Your task to perform on an android device: What's the weather going to be this weekend? Image 0: 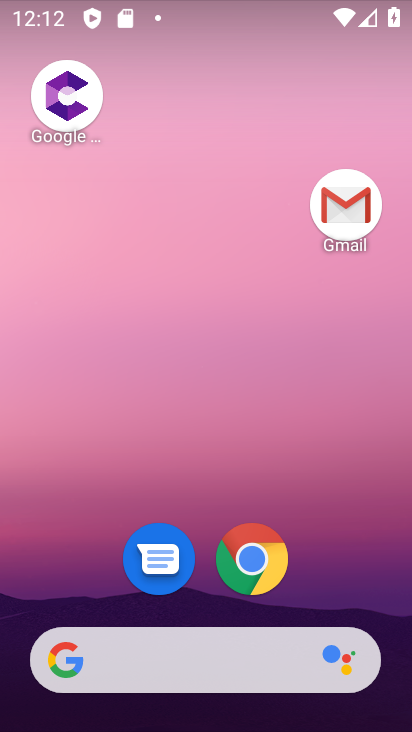
Step 0: click (228, 658)
Your task to perform on an android device: What's the weather going to be this weekend? Image 1: 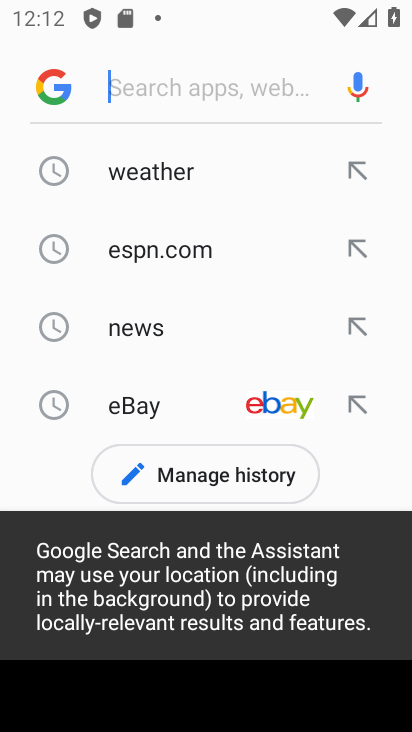
Step 1: click (172, 179)
Your task to perform on an android device: What's the weather going to be this weekend? Image 2: 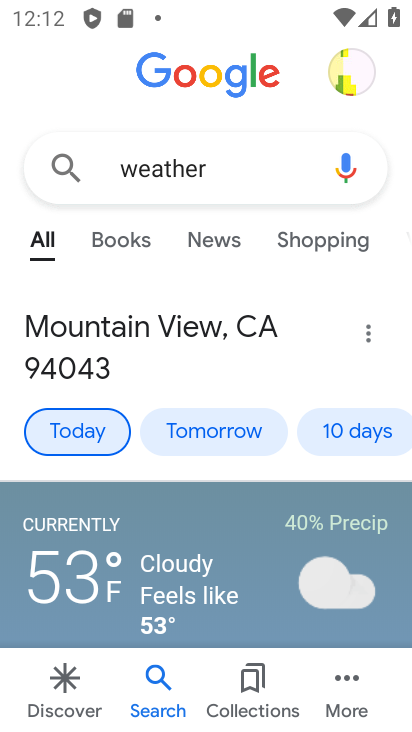
Step 2: click (351, 426)
Your task to perform on an android device: What's the weather going to be this weekend? Image 3: 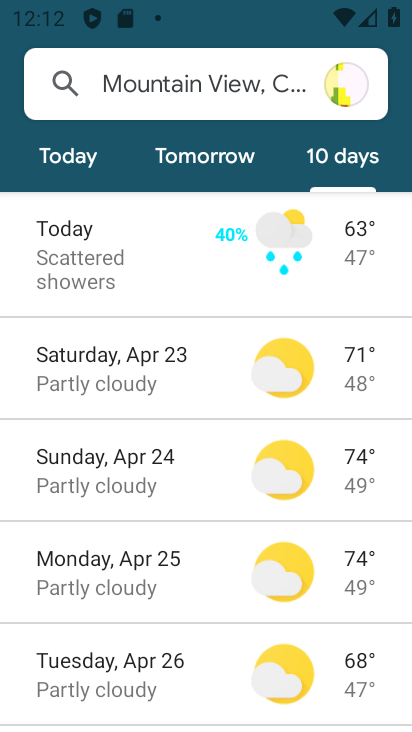
Step 3: task complete